Your task to perform on an android device: What's the weather going to be tomorrow? Image 0: 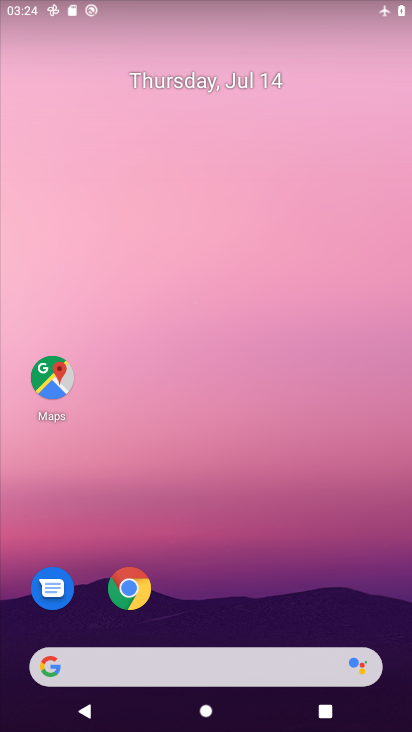
Step 0: drag from (300, 596) to (199, 203)
Your task to perform on an android device: What's the weather going to be tomorrow? Image 1: 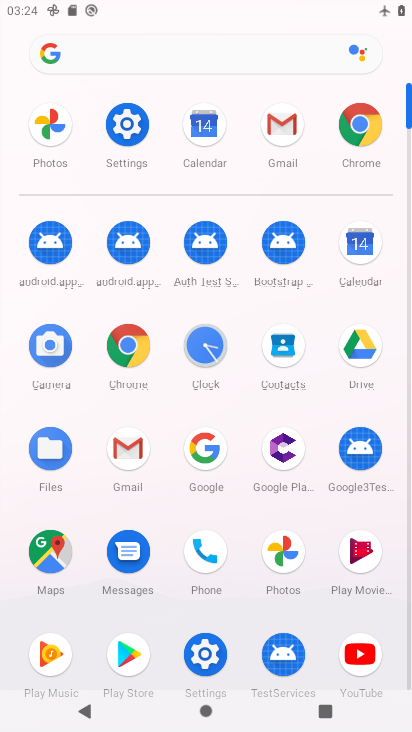
Step 1: click (359, 139)
Your task to perform on an android device: What's the weather going to be tomorrow? Image 2: 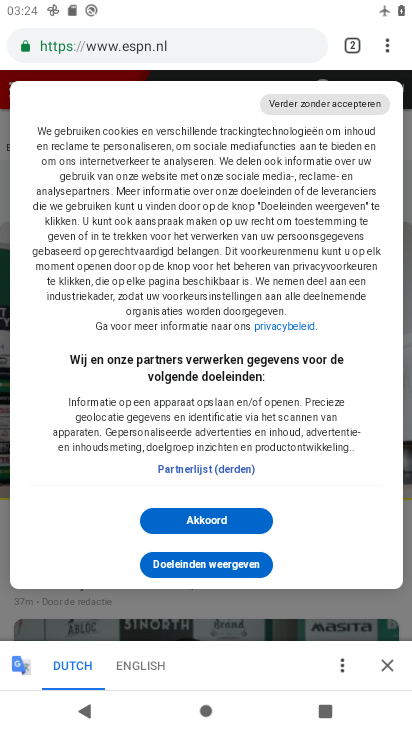
Step 2: click (225, 41)
Your task to perform on an android device: What's the weather going to be tomorrow? Image 3: 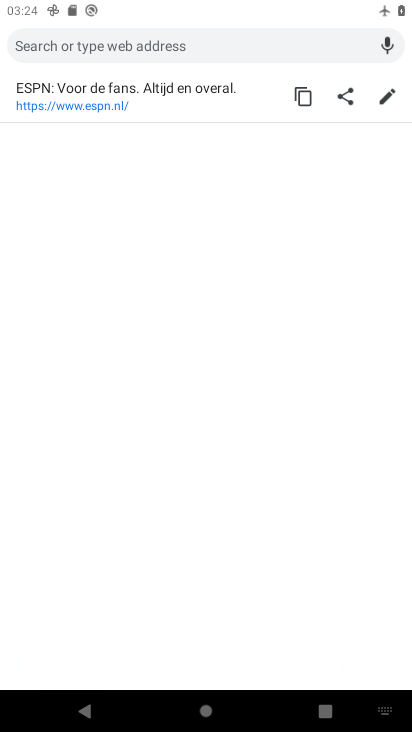
Step 3: click (225, 41)
Your task to perform on an android device: What's the weather going to be tomorrow? Image 4: 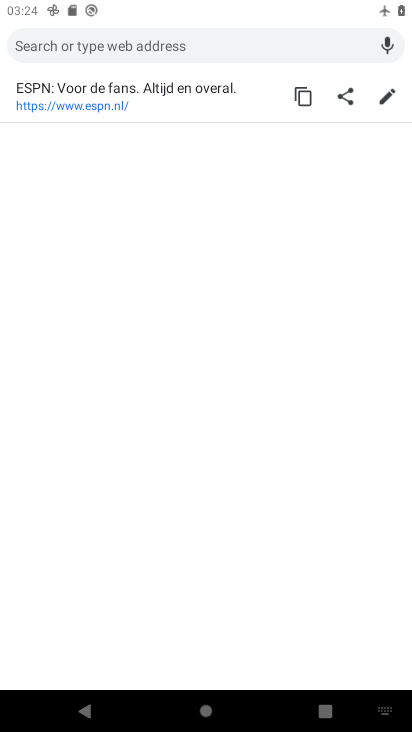
Step 4: type "What's the weather going to be tomorrow?"
Your task to perform on an android device: What's the weather going to be tomorrow? Image 5: 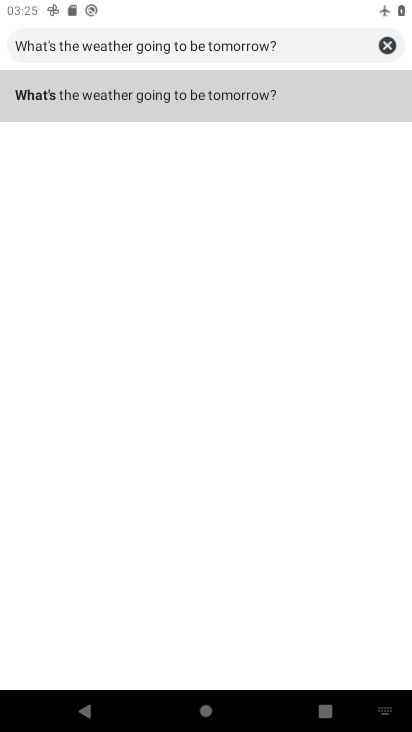
Step 5: click (154, 91)
Your task to perform on an android device: What's the weather going to be tomorrow? Image 6: 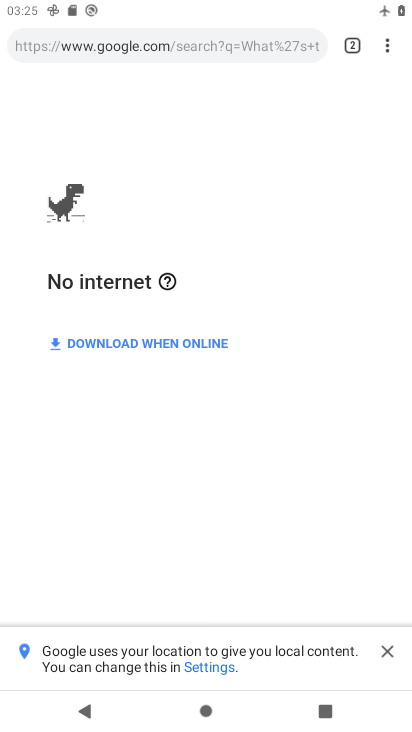
Step 6: task complete